Your task to perform on an android device: toggle wifi Image 0: 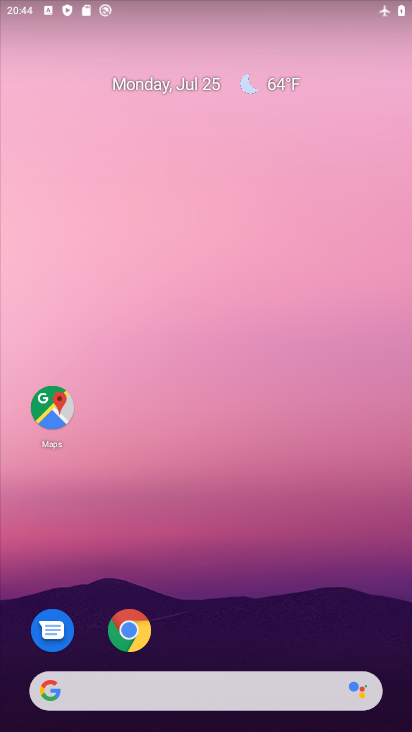
Step 0: drag from (351, 636) to (332, 108)
Your task to perform on an android device: toggle wifi Image 1: 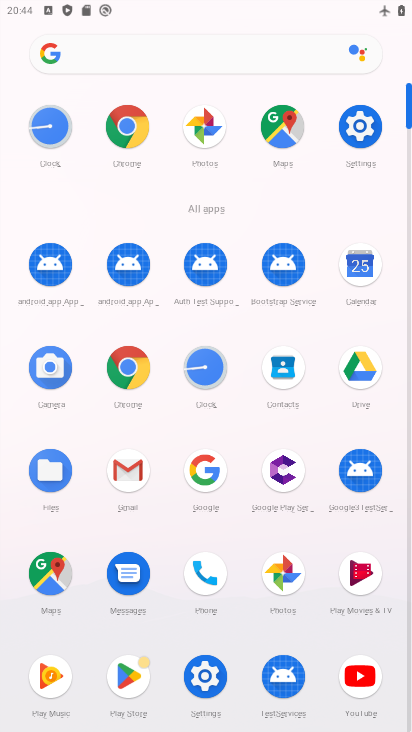
Step 1: click (207, 675)
Your task to perform on an android device: toggle wifi Image 2: 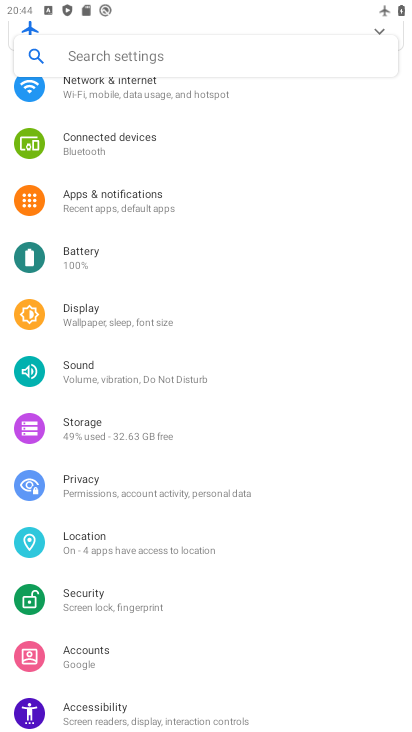
Step 2: drag from (265, 198) to (234, 438)
Your task to perform on an android device: toggle wifi Image 3: 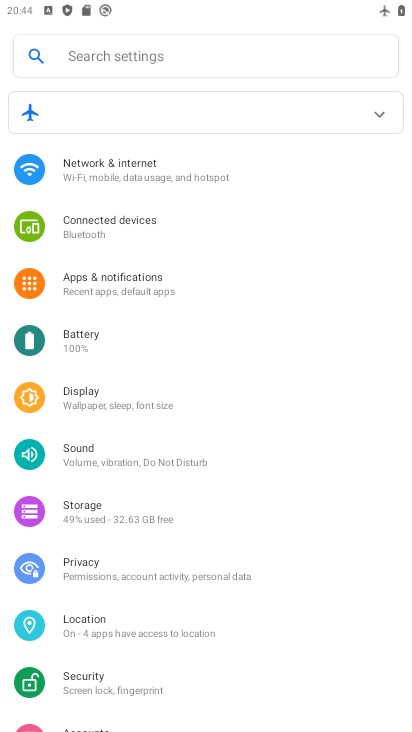
Step 3: click (92, 162)
Your task to perform on an android device: toggle wifi Image 4: 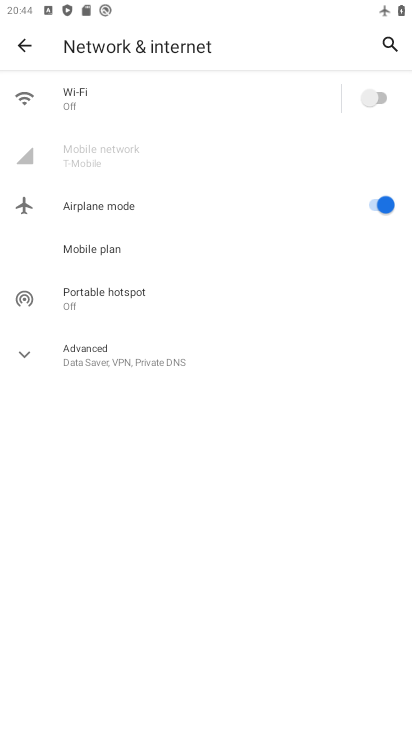
Step 4: click (381, 98)
Your task to perform on an android device: toggle wifi Image 5: 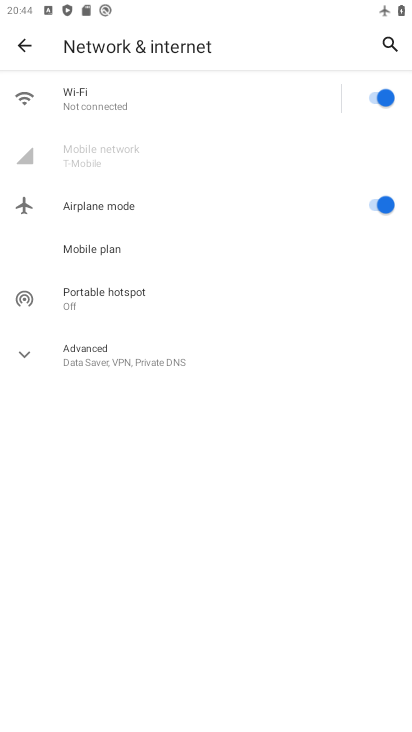
Step 5: task complete